Your task to perform on an android device: Do I have any events this weekend? Image 0: 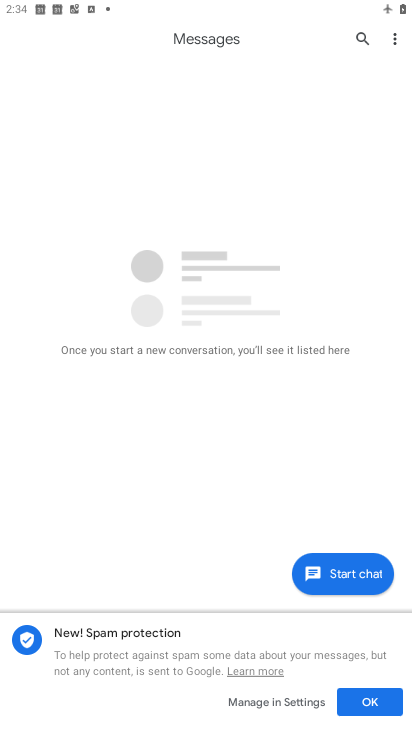
Step 0: drag from (211, 614) to (280, 258)
Your task to perform on an android device: Do I have any events this weekend? Image 1: 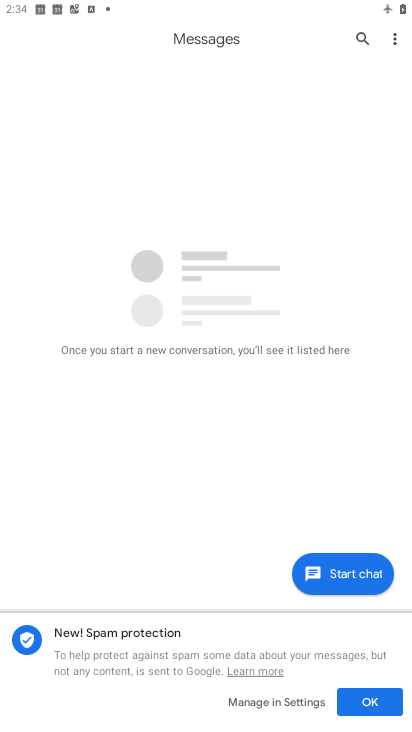
Step 1: press home button
Your task to perform on an android device: Do I have any events this weekend? Image 2: 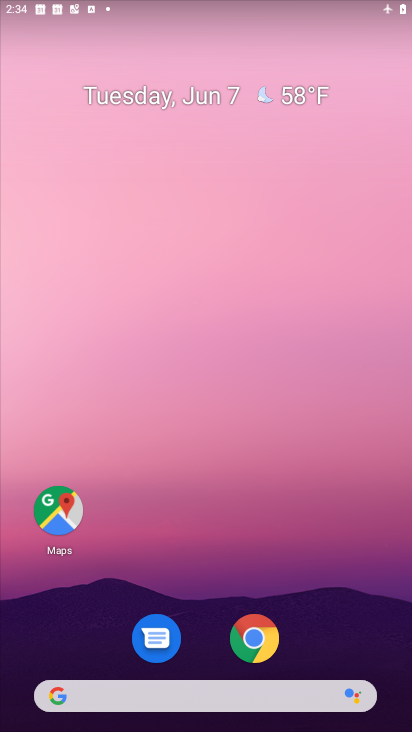
Step 2: drag from (193, 658) to (229, 292)
Your task to perform on an android device: Do I have any events this weekend? Image 3: 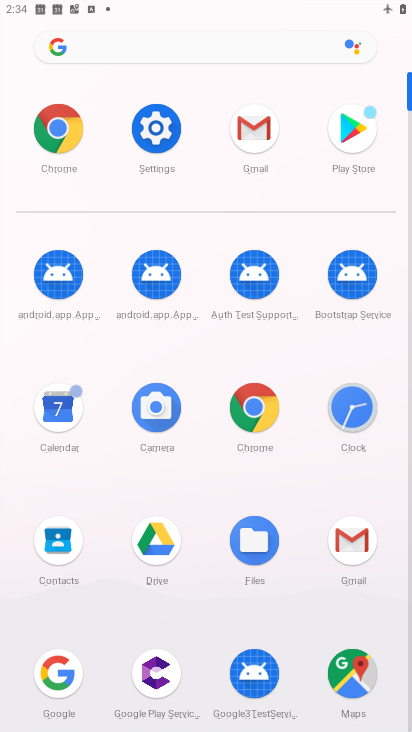
Step 3: drag from (205, 655) to (260, 189)
Your task to perform on an android device: Do I have any events this weekend? Image 4: 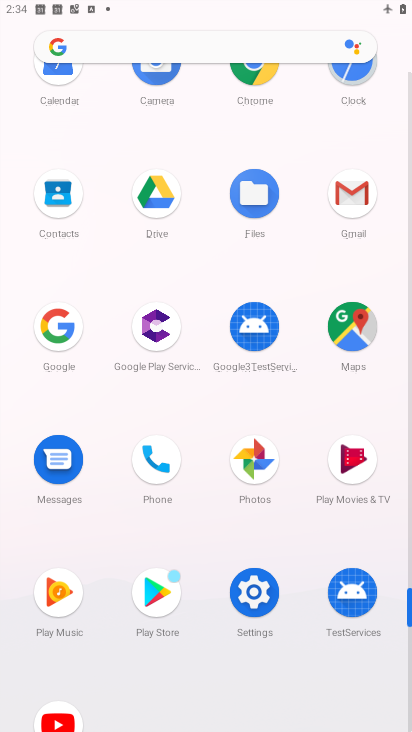
Step 4: click (70, 74)
Your task to perform on an android device: Do I have any events this weekend? Image 5: 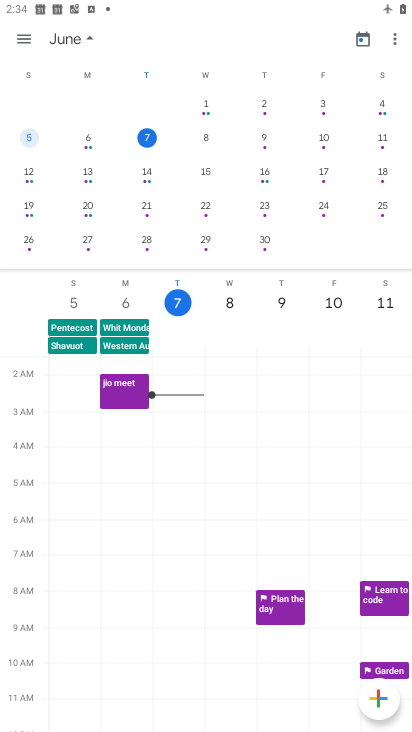
Step 5: click (207, 139)
Your task to perform on an android device: Do I have any events this weekend? Image 6: 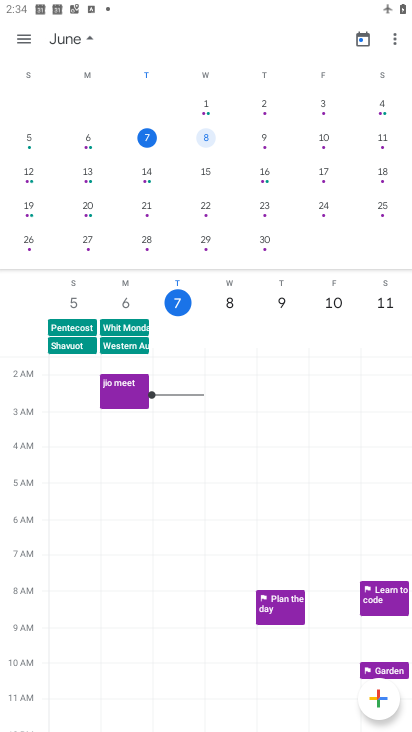
Step 6: click (386, 138)
Your task to perform on an android device: Do I have any events this weekend? Image 7: 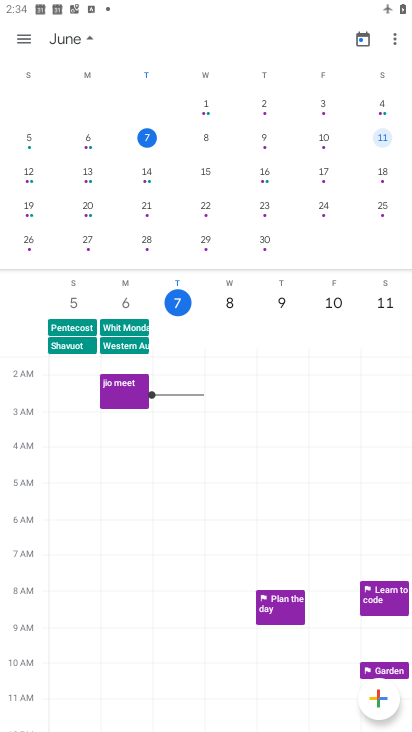
Step 7: click (27, 178)
Your task to perform on an android device: Do I have any events this weekend? Image 8: 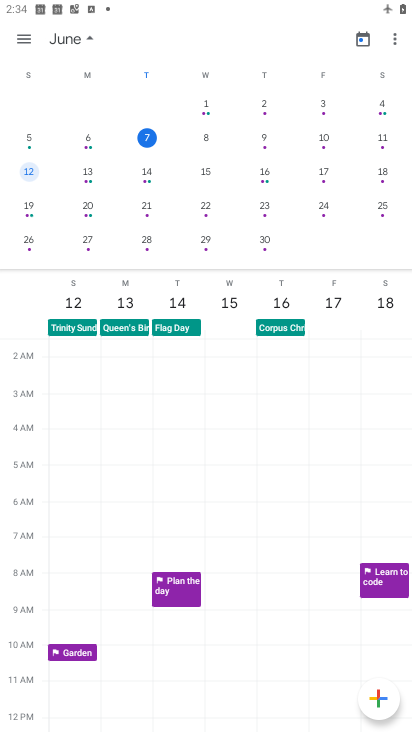
Step 8: task complete